Your task to perform on an android device: see tabs open on other devices in the chrome app Image 0: 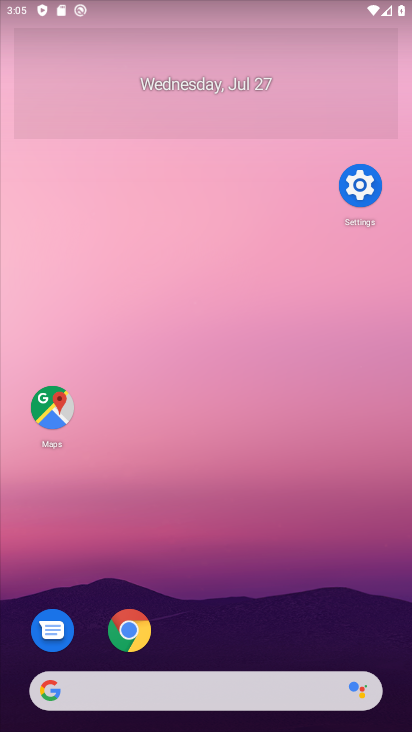
Step 0: press home button
Your task to perform on an android device: see tabs open on other devices in the chrome app Image 1: 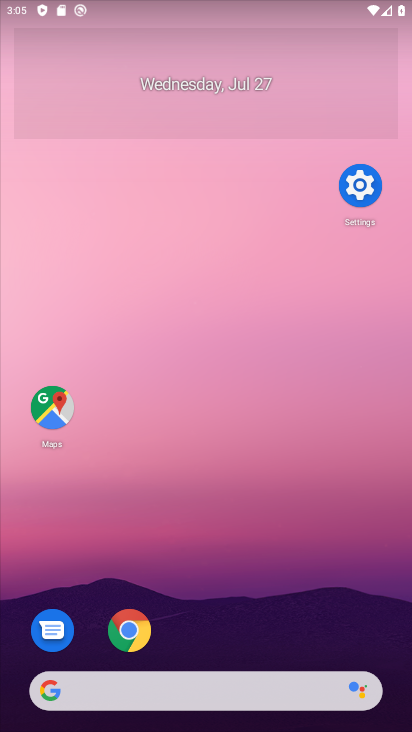
Step 1: drag from (279, 636) to (286, 75)
Your task to perform on an android device: see tabs open on other devices in the chrome app Image 2: 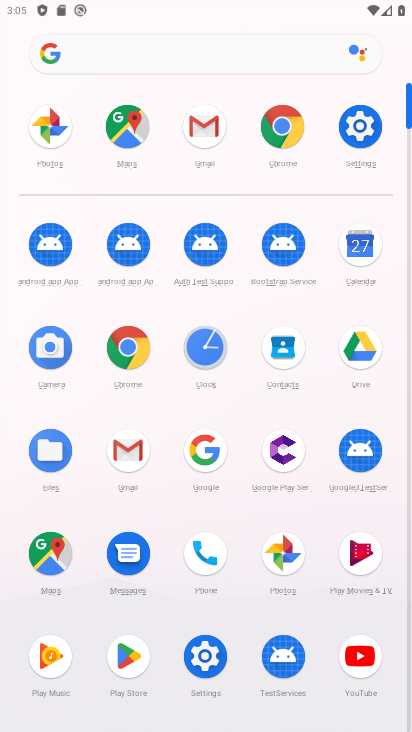
Step 2: click (273, 123)
Your task to perform on an android device: see tabs open on other devices in the chrome app Image 3: 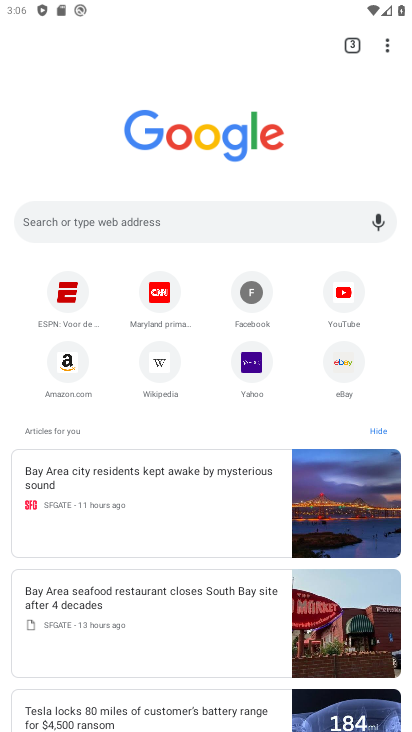
Step 3: task complete